Your task to perform on an android device: Open Android settings Image 0: 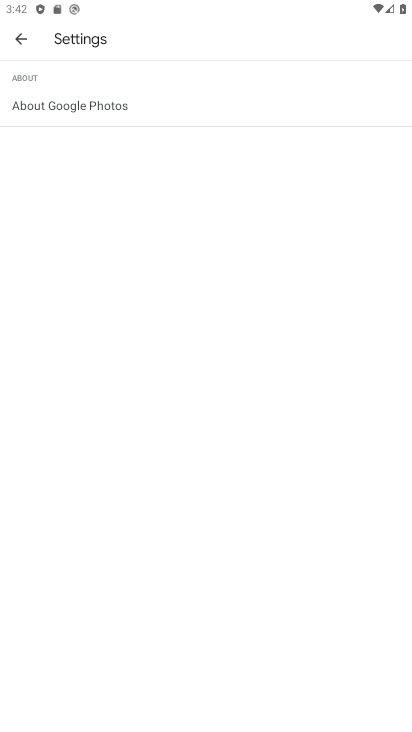
Step 0: press back button
Your task to perform on an android device: Open Android settings Image 1: 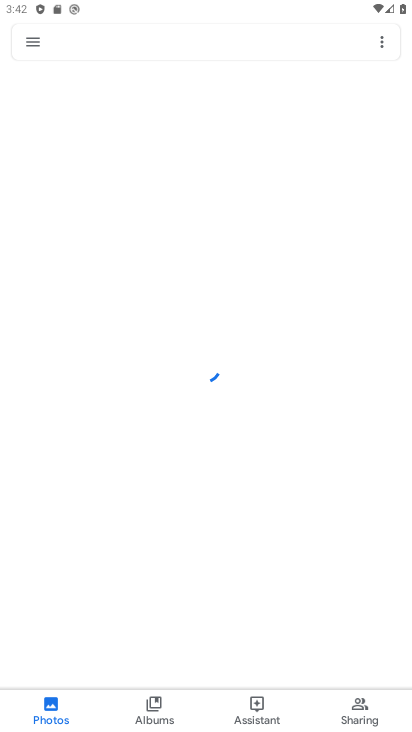
Step 1: press back button
Your task to perform on an android device: Open Android settings Image 2: 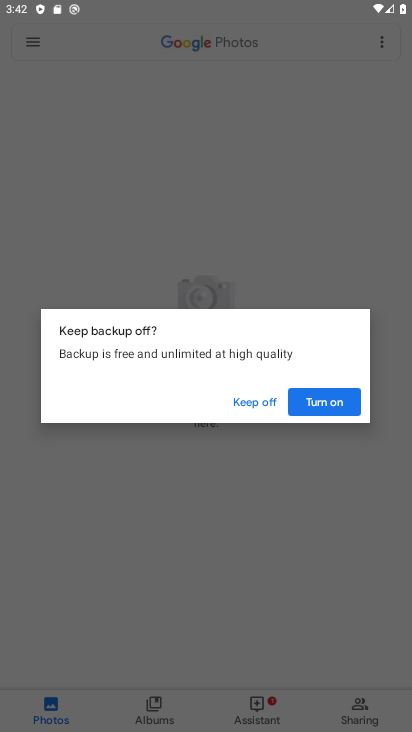
Step 2: click (262, 396)
Your task to perform on an android device: Open Android settings Image 3: 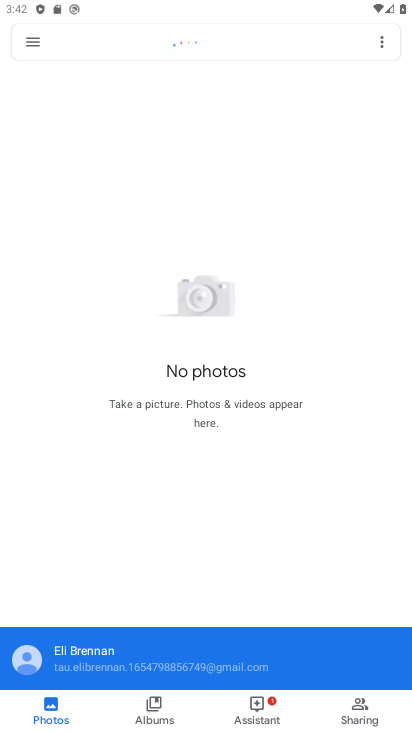
Step 3: press back button
Your task to perform on an android device: Open Android settings Image 4: 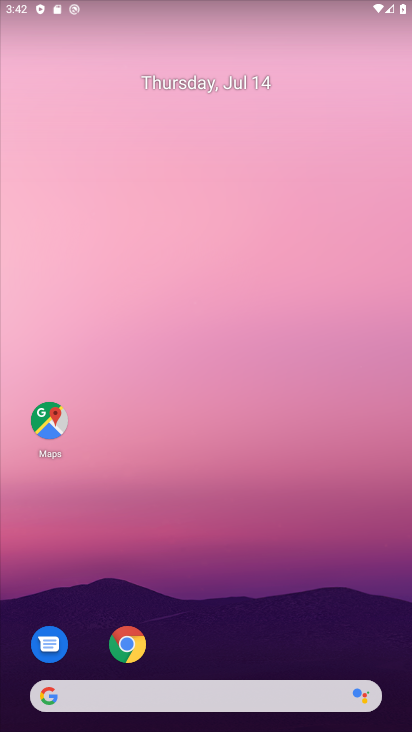
Step 4: drag from (198, 657) to (282, 13)
Your task to perform on an android device: Open Android settings Image 5: 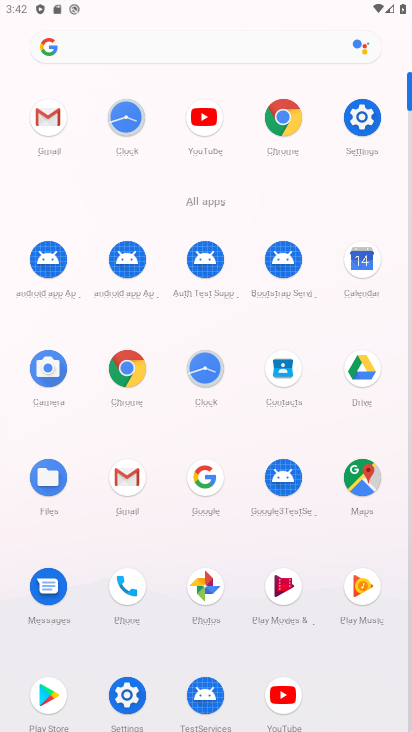
Step 5: click (386, 125)
Your task to perform on an android device: Open Android settings Image 6: 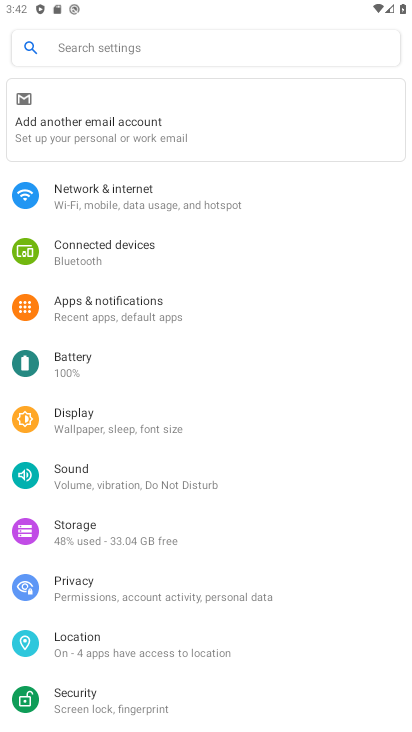
Step 6: drag from (112, 706) to (230, 52)
Your task to perform on an android device: Open Android settings Image 7: 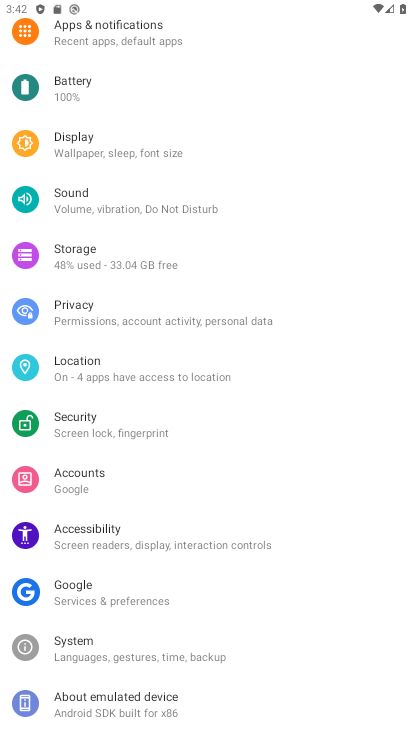
Step 7: click (111, 699)
Your task to perform on an android device: Open Android settings Image 8: 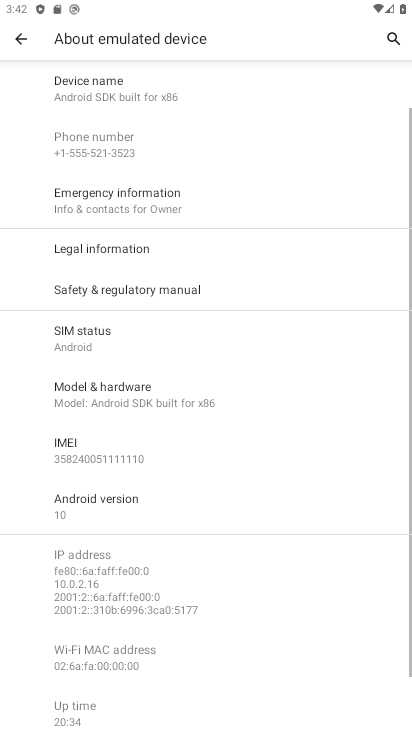
Step 8: click (89, 505)
Your task to perform on an android device: Open Android settings Image 9: 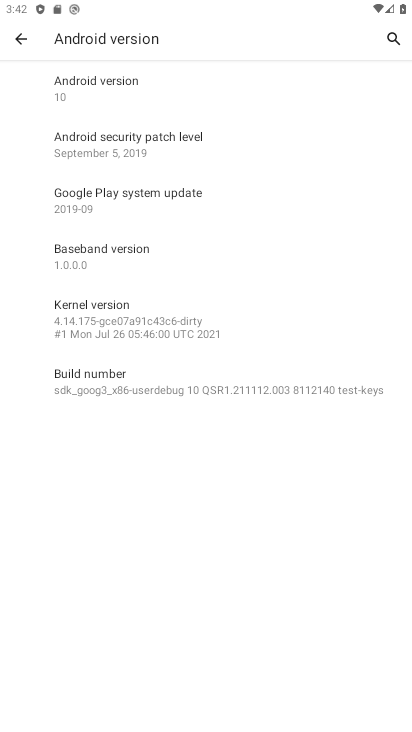
Step 9: task complete